Your task to perform on an android device: Show the shopping cart on amazon. Image 0: 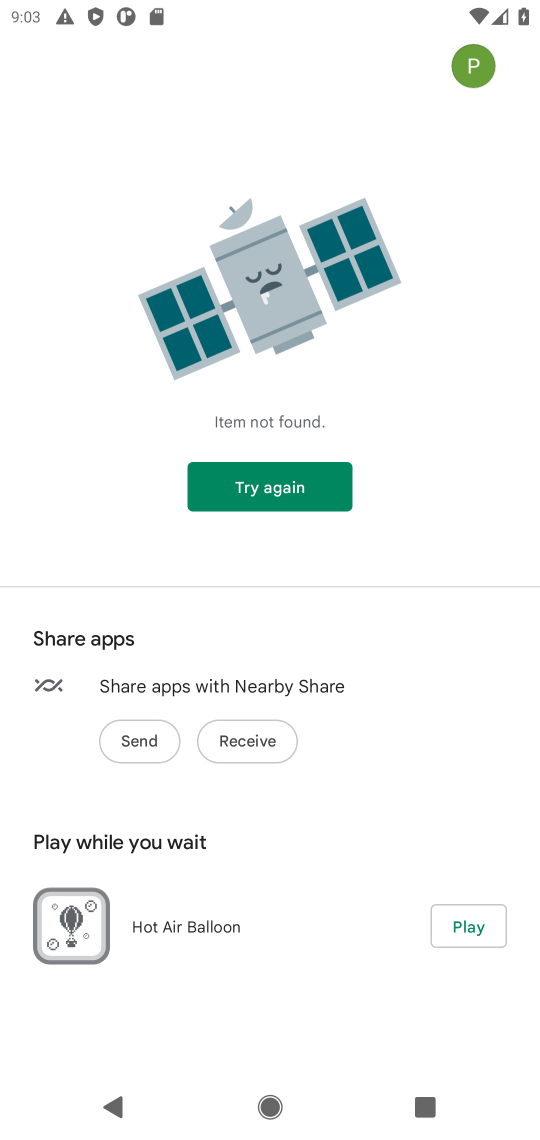
Step 0: press home button
Your task to perform on an android device: Show the shopping cart on amazon. Image 1: 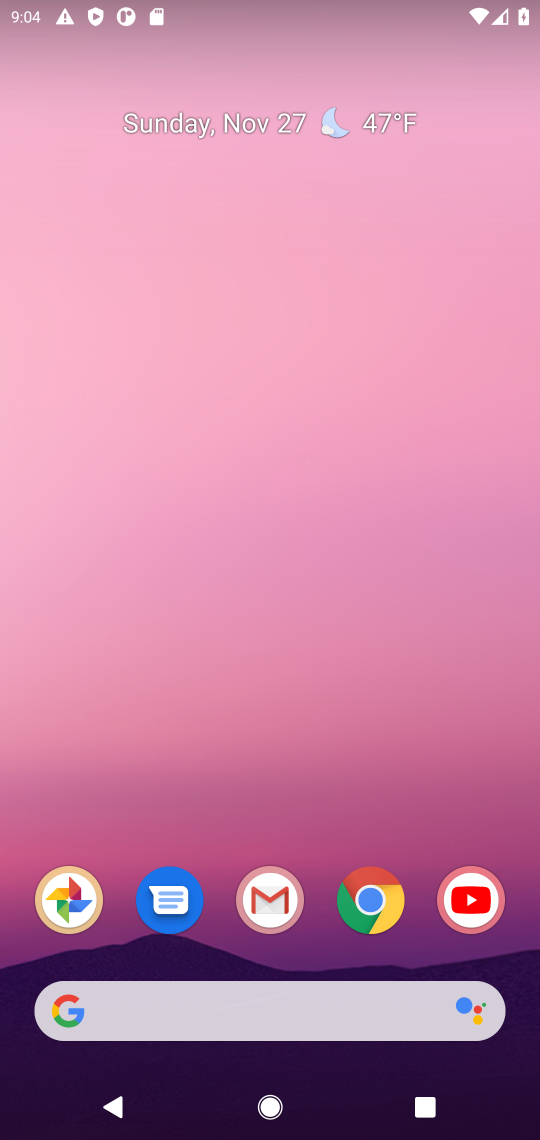
Step 1: click (372, 908)
Your task to perform on an android device: Show the shopping cart on amazon. Image 2: 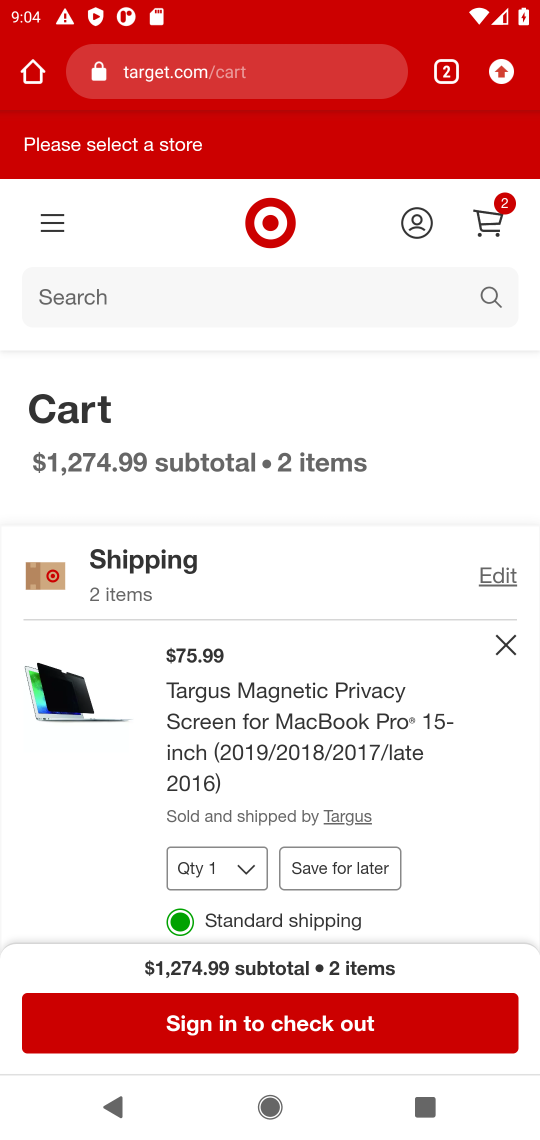
Step 2: click (238, 65)
Your task to perform on an android device: Show the shopping cart on amazon. Image 3: 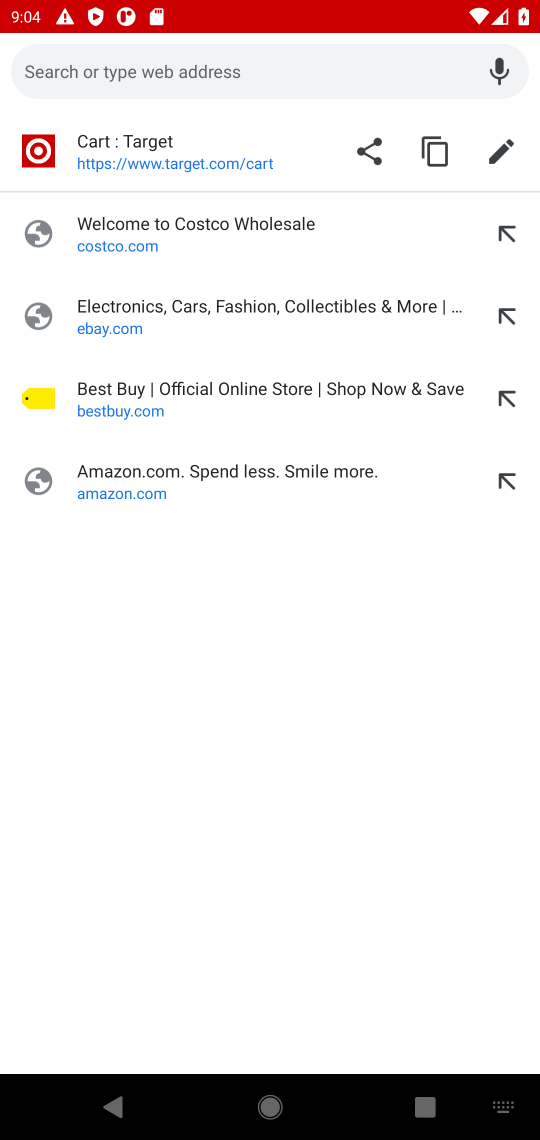
Step 3: click (93, 488)
Your task to perform on an android device: Show the shopping cart on amazon. Image 4: 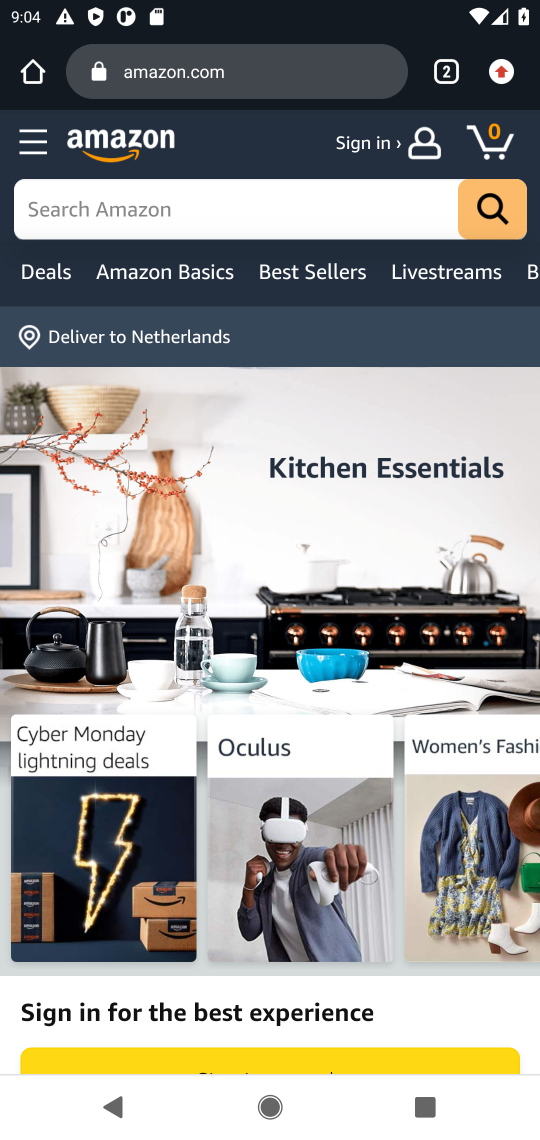
Step 4: click (496, 146)
Your task to perform on an android device: Show the shopping cart on amazon. Image 5: 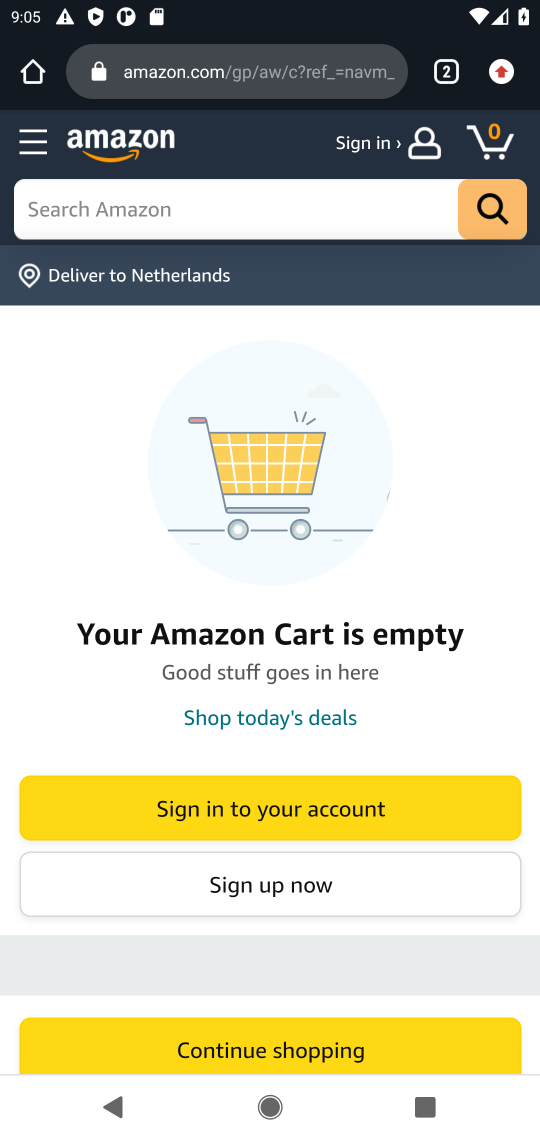
Step 5: task complete